Your task to perform on an android device: See recent photos Image 0: 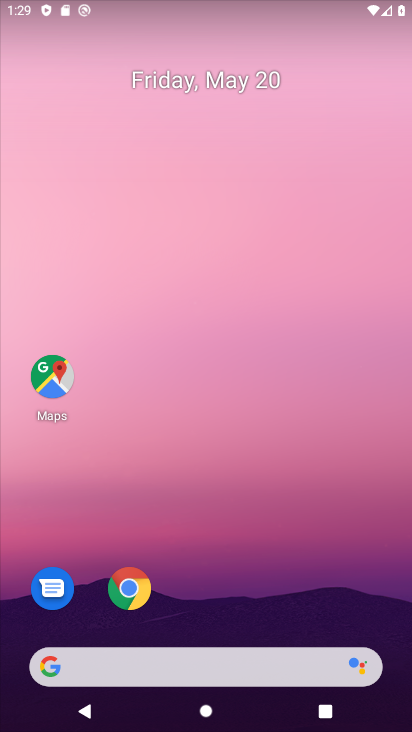
Step 0: drag from (181, 654) to (223, 131)
Your task to perform on an android device: See recent photos Image 1: 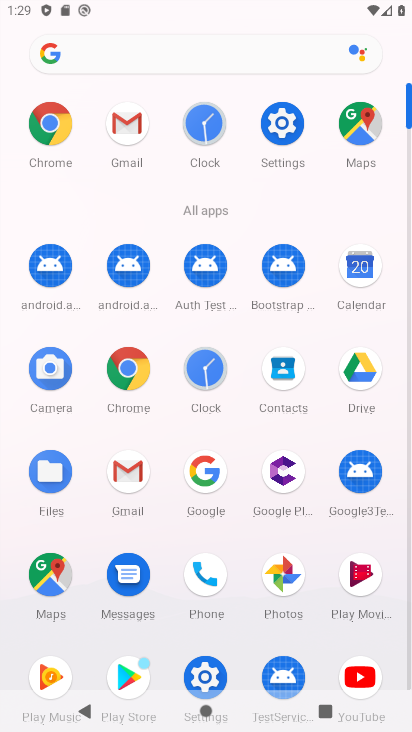
Step 1: click (278, 587)
Your task to perform on an android device: See recent photos Image 2: 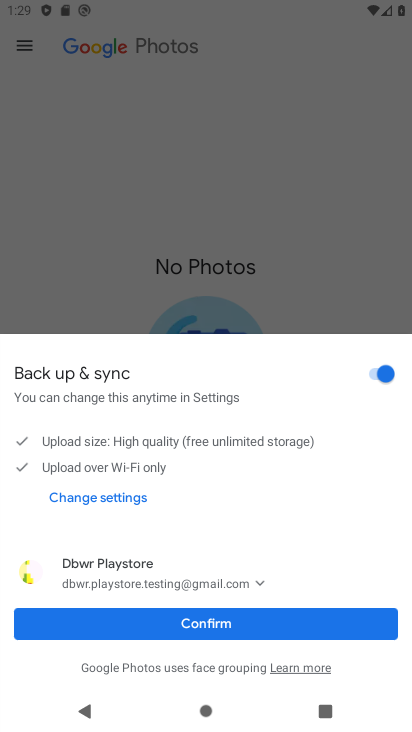
Step 2: click (221, 628)
Your task to perform on an android device: See recent photos Image 3: 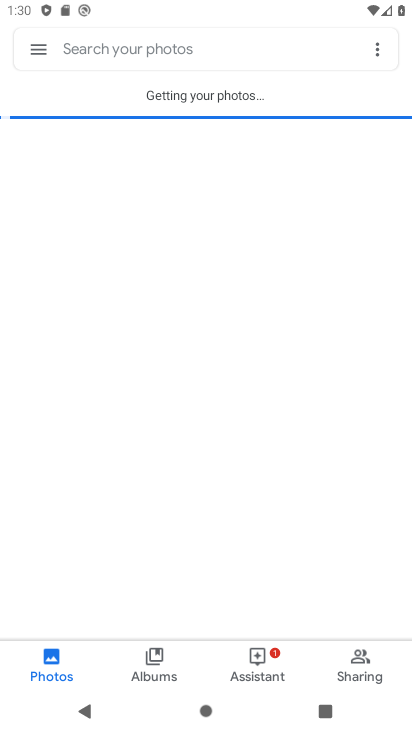
Step 3: task complete